Your task to perform on an android device: add a contact Image 0: 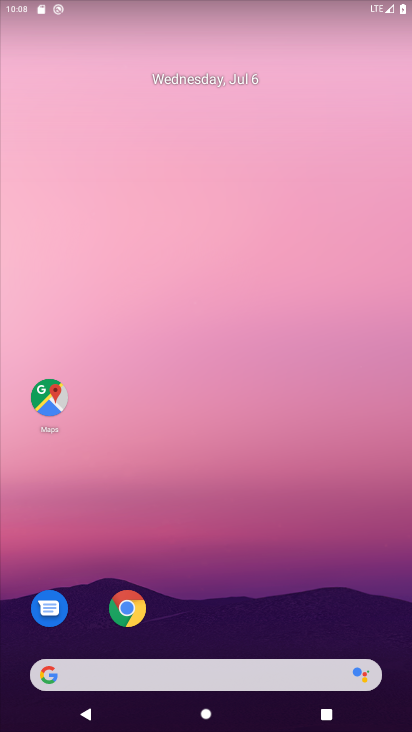
Step 0: drag from (200, 599) to (227, 0)
Your task to perform on an android device: add a contact Image 1: 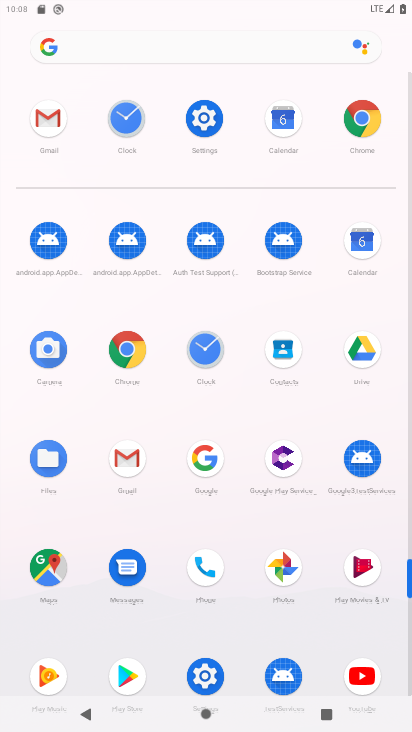
Step 1: click (279, 358)
Your task to perform on an android device: add a contact Image 2: 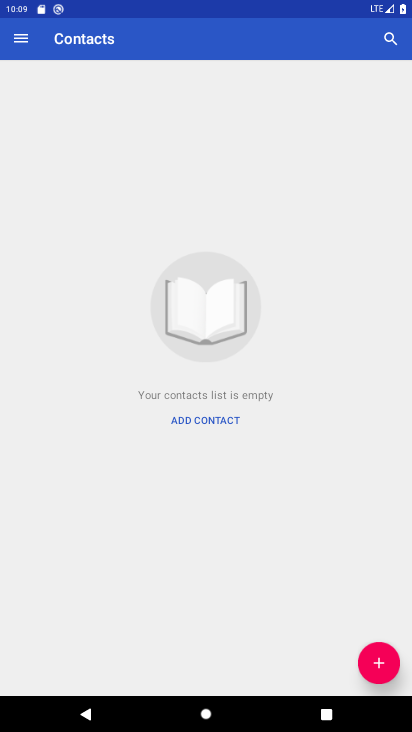
Step 2: click (384, 653)
Your task to perform on an android device: add a contact Image 3: 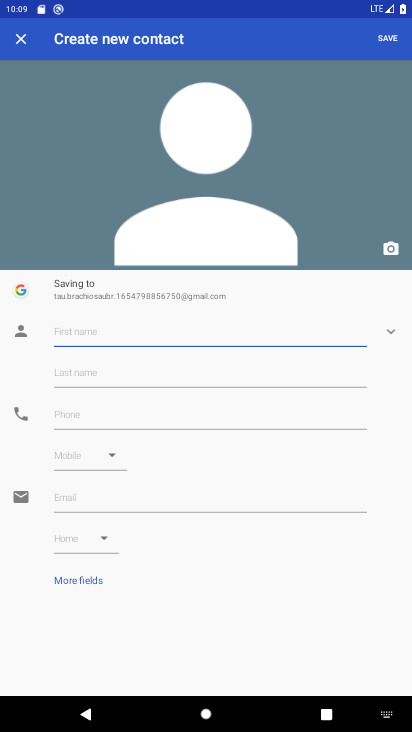
Step 3: type "johny"
Your task to perform on an android device: add a contact Image 4: 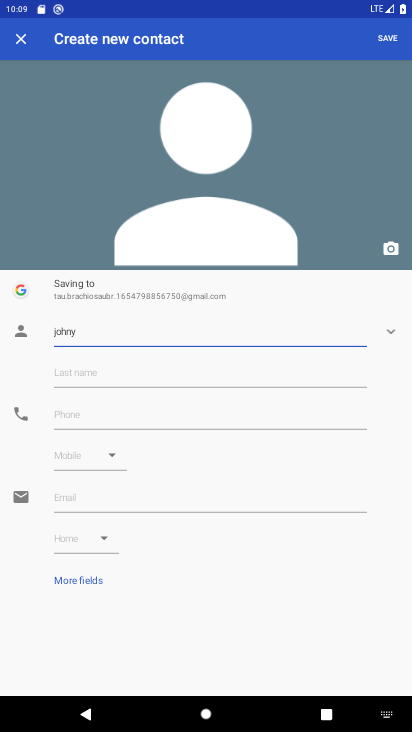
Step 4: click (382, 36)
Your task to perform on an android device: add a contact Image 5: 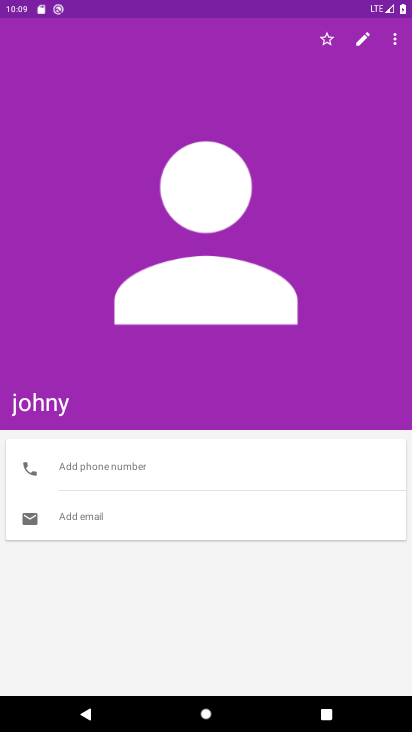
Step 5: task complete